Your task to perform on an android device: turn off data saver in the chrome app Image 0: 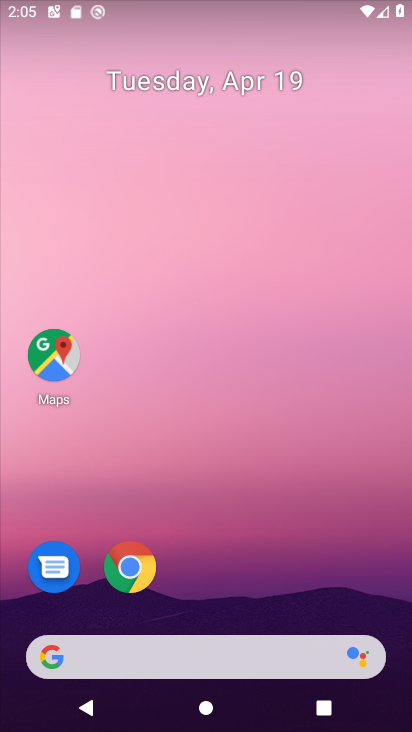
Step 0: click (116, 569)
Your task to perform on an android device: turn off data saver in the chrome app Image 1: 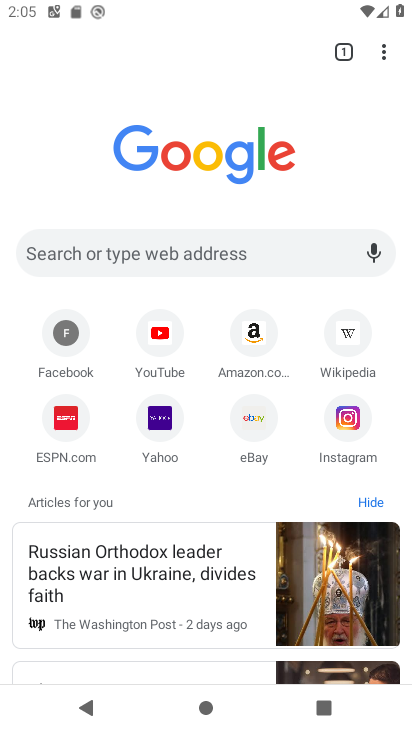
Step 1: click (386, 51)
Your task to perform on an android device: turn off data saver in the chrome app Image 2: 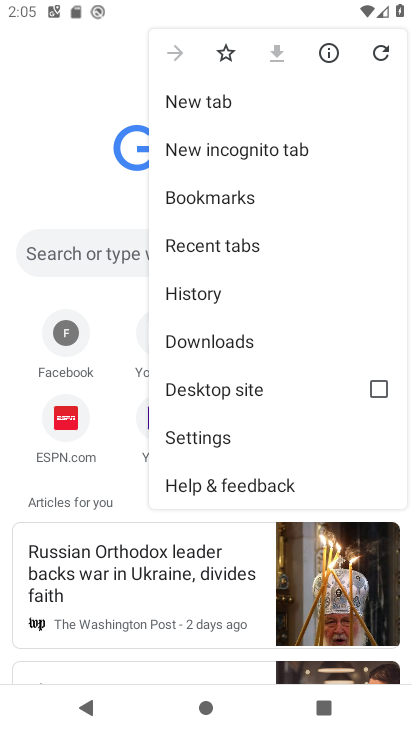
Step 2: click (207, 439)
Your task to perform on an android device: turn off data saver in the chrome app Image 3: 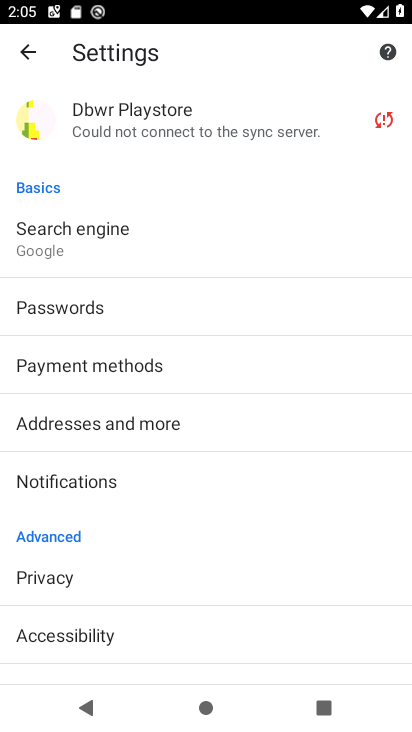
Step 3: drag from (156, 527) to (183, 74)
Your task to perform on an android device: turn off data saver in the chrome app Image 4: 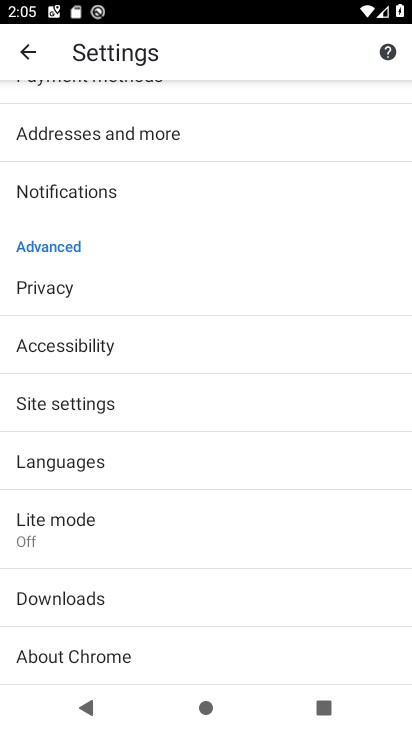
Step 4: click (58, 524)
Your task to perform on an android device: turn off data saver in the chrome app Image 5: 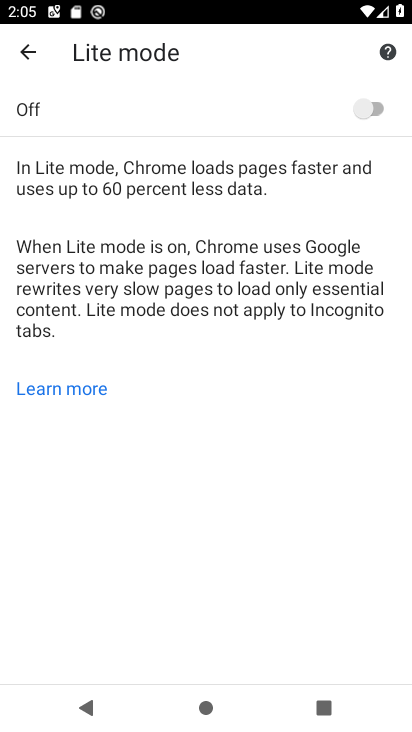
Step 5: task complete